Your task to perform on an android device: Open network settings Image 0: 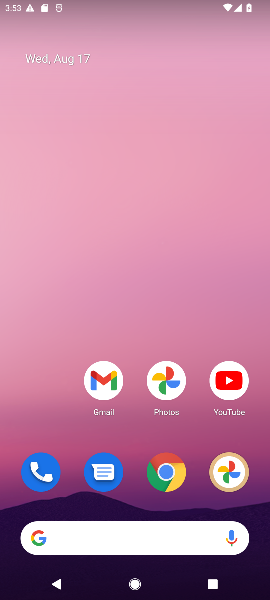
Step 0: drag from (142, 503) to (128, 127)
Your task to perform on an android device: Open network settings Image 1: 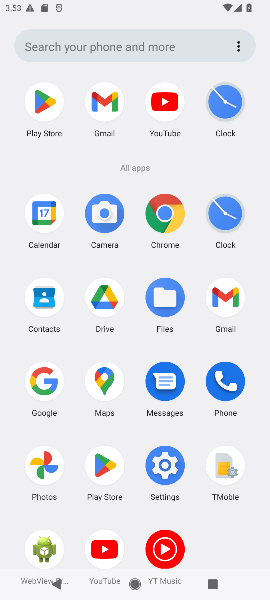
Step 1: click (173, 466)
Your task to perform on an android device: Open network settings Image 2: 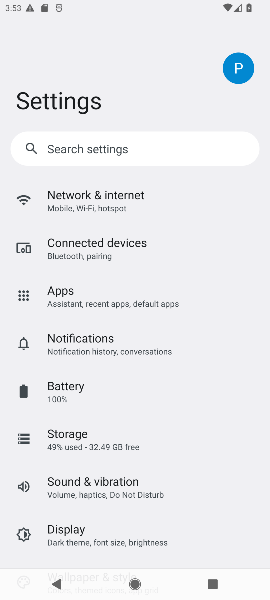
Step 2: click (108, 206)
Your task to perform on an android device: Open network settings Image 3: 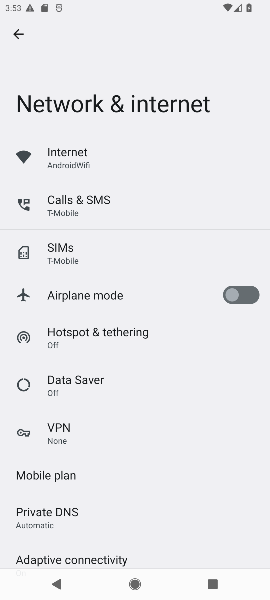
Step 3: task complete